Your task to perform on an android device: open app "Life360: Find Family & Friends" Image 0: 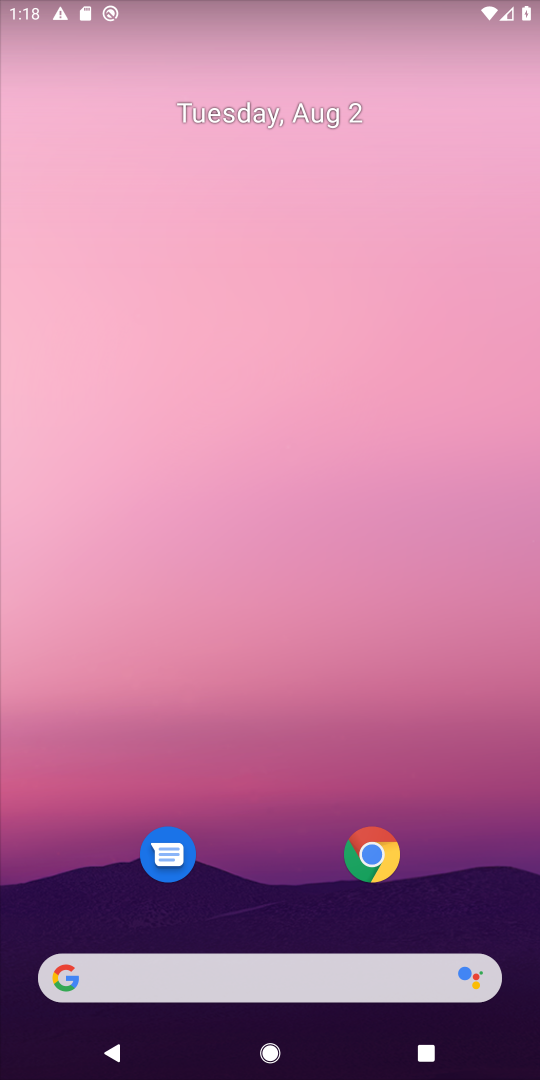
Step 0: drag from (301, 1069) to (328, 56)
Your task to perform on an android device: open app "Life360: Find Family & Friends" Image 1: 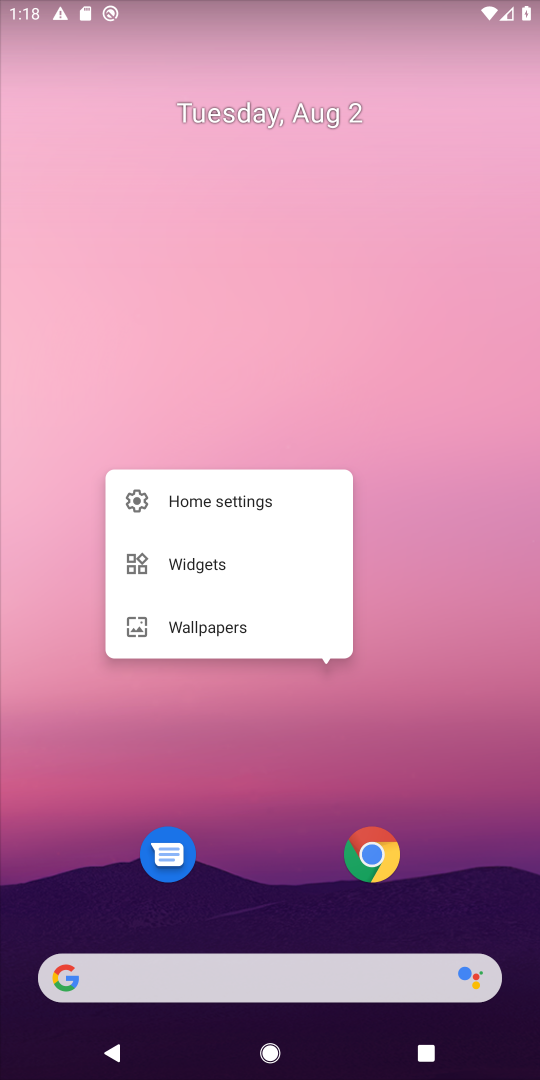
Step 1: click (424, 791)
Your task to perform on an android device: open app "Life360: Find Family & Friends" Image 2: 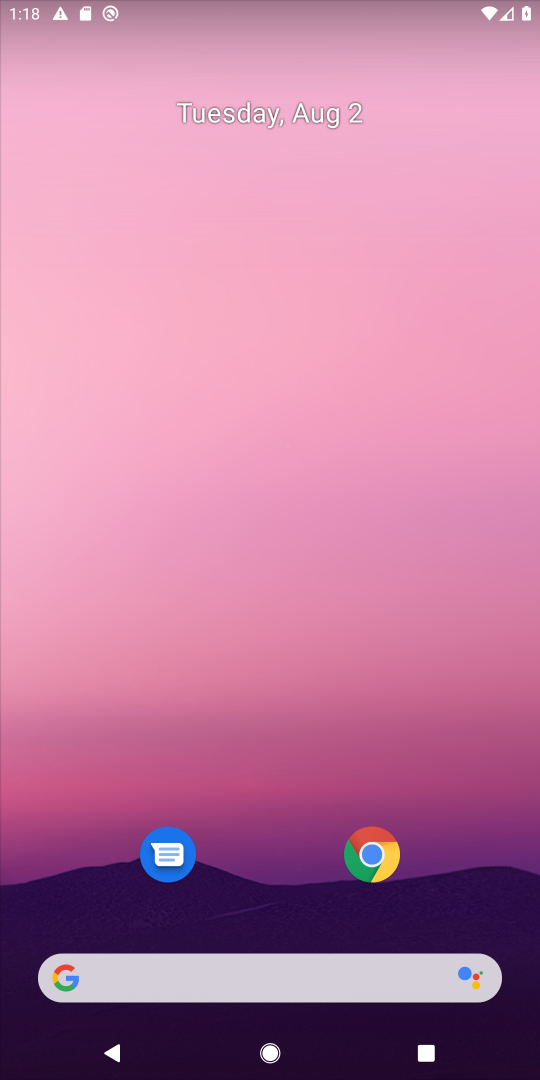
Step 2: drag from (273, 924) to (252, 99)
Your task to perform on an android device: open app "Life360: Find Family & Friends" Image 3: 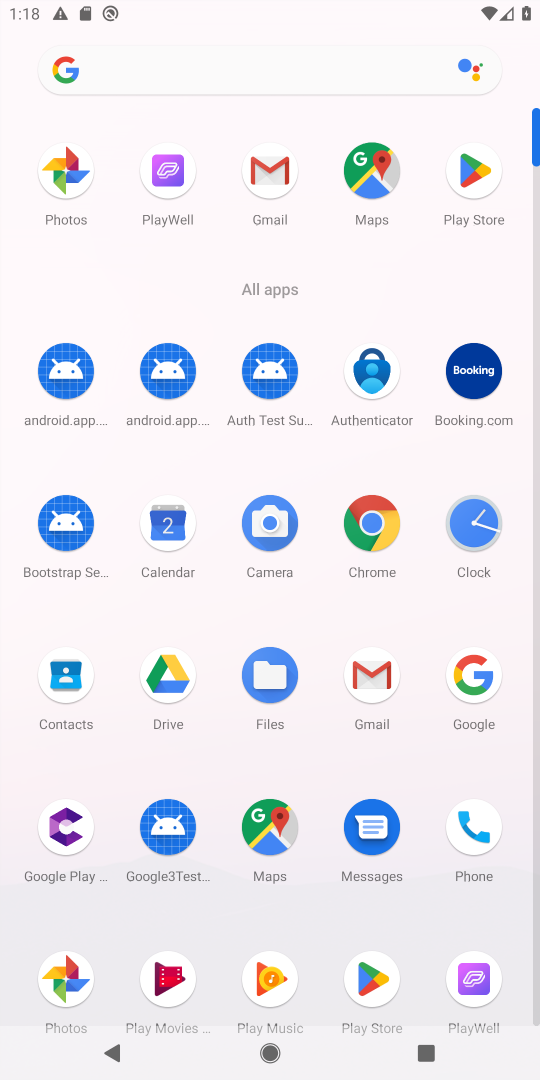
Step 3: click (373, 978)
Your task to perform on an android device: open app "Life360: Find Family & Friends" Image 4: 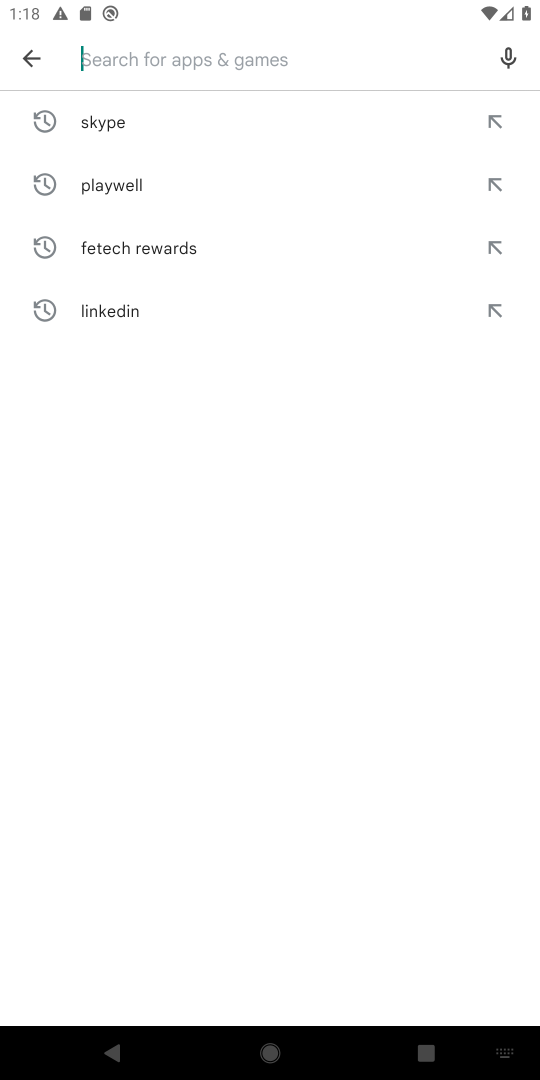
Step 4: type "Life360: Find Family & Friends"
Your task to perform on an android device: open app "Life360: Find Family & Friends" Image 5: 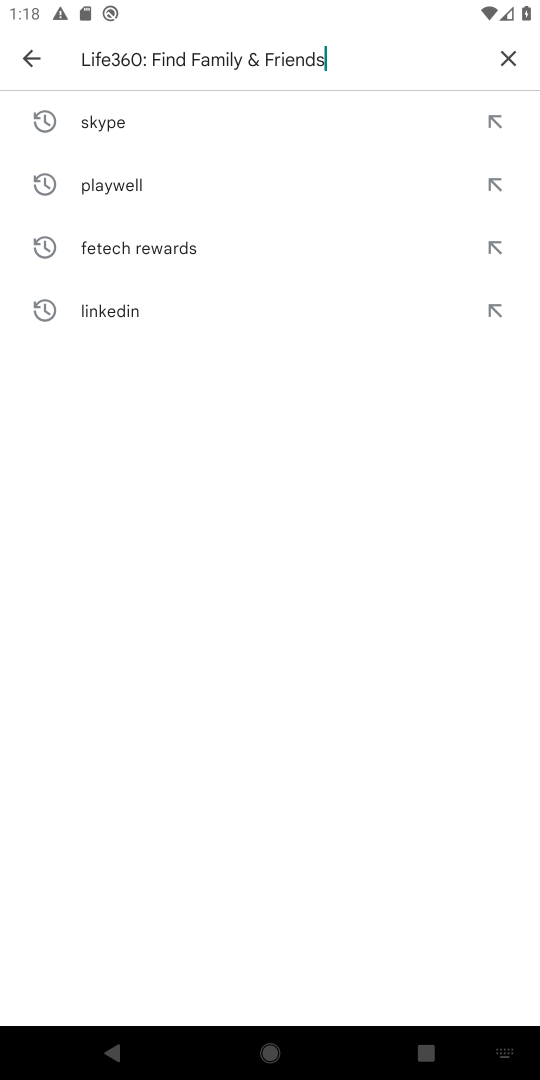
Step 5: type ""
Your task to perform on an android device: open app "Life360: Find Family & Friends" Image 6: 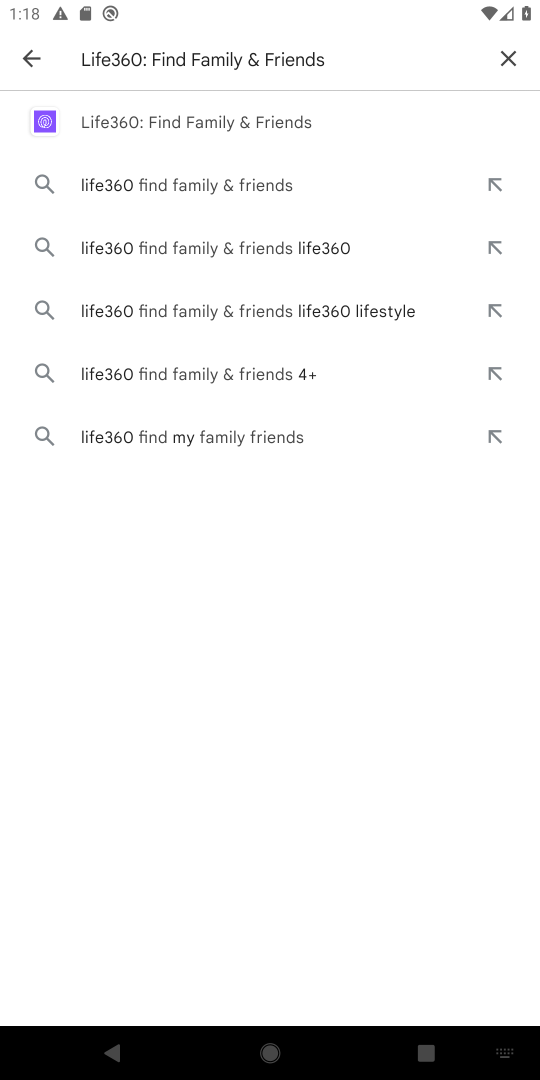
Step 6: click (125, 123)
Your task to perform on an android device: open app "Life360: Find Family & Friends" Image 7: 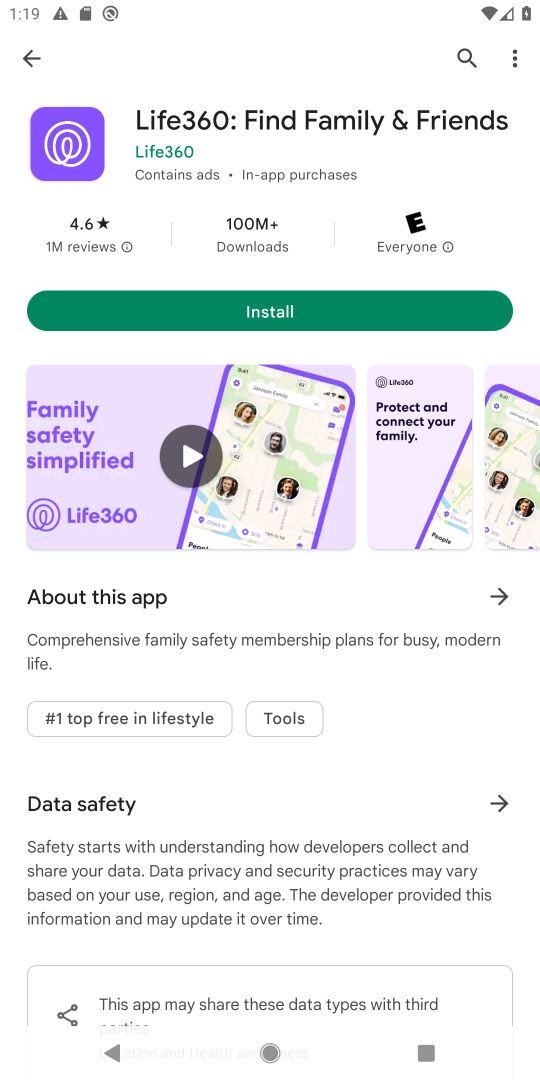
Step 7: task complete